Your task to perform on an android device: turn off smart reply in the gmail app Image 0: 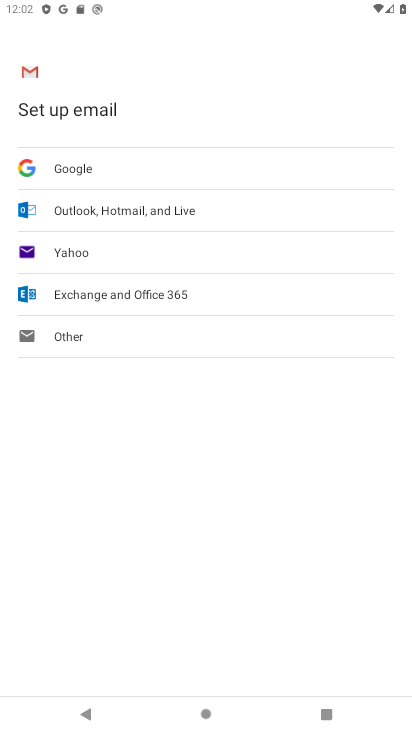
Step 0: press home button
Your task to perform on an android device: turn off smart reply in the gmail app Image 1: 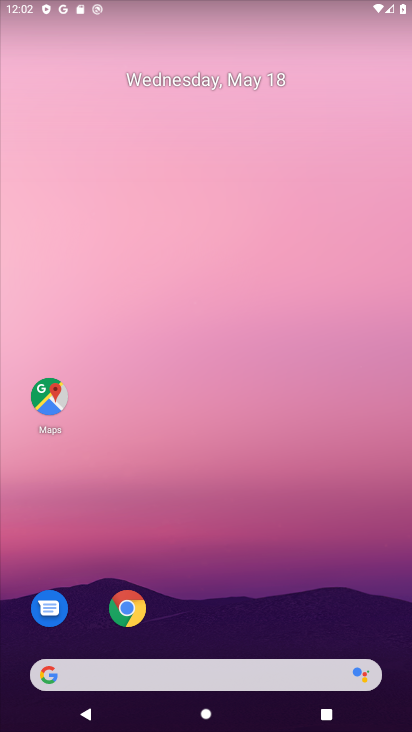
Step 1: drag from (247, 660) to (232, 274)
Your task to perform on an android device: turn off smart reply in the gmail app Image 2: 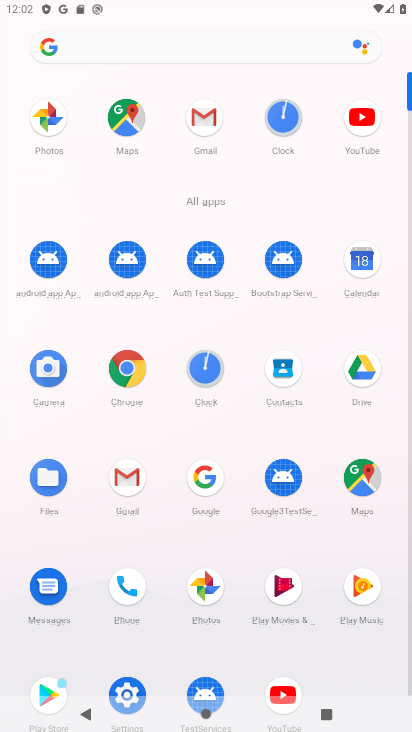
Step 2: click (121, 484)
Your task to perform on an android device: turn off smart reply in the gmail app Image 3: 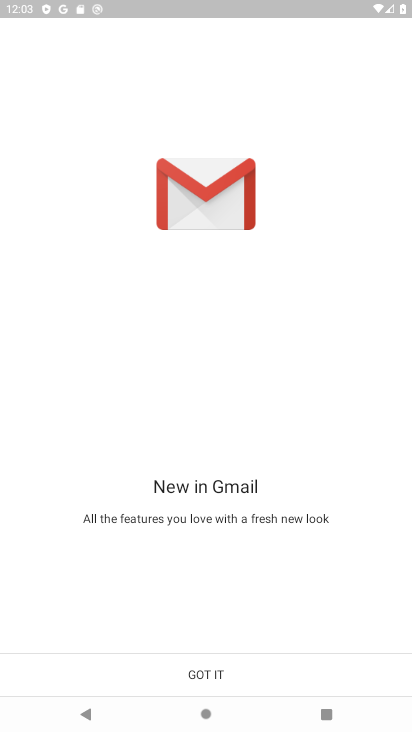
Step 3: click (226, 677)
Your task to perform on an android device: turn off smart reply in the gmail app Image 4: 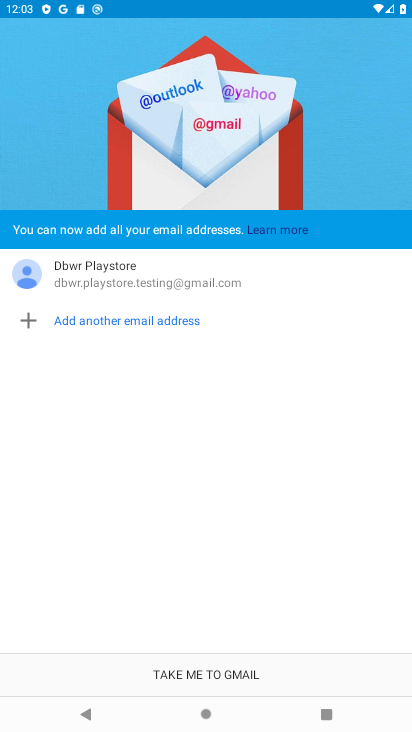
Step 4: click (226, 677)
Your task to perform on an android device: turn off smart reply in the gmail app Image 5: 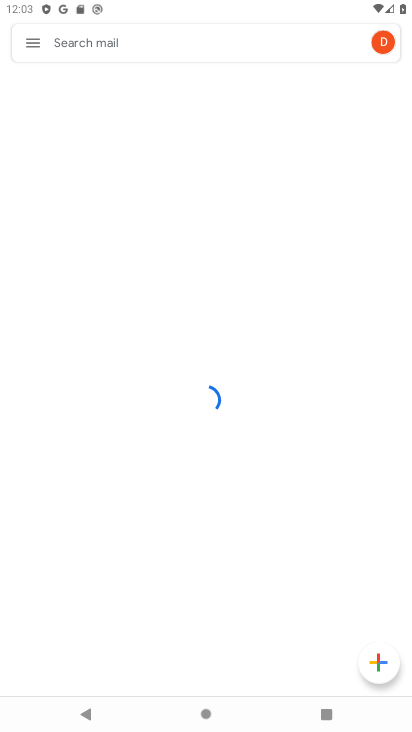
Step 5: click (32, 47)
Your task to perform on an android device: turn off smart reply in the gmail app Image 6: 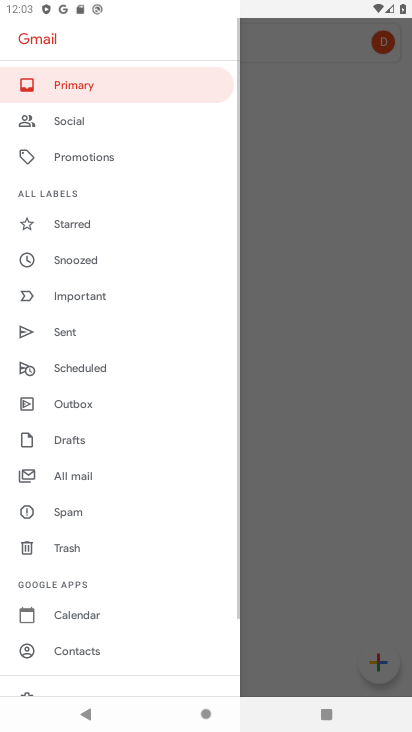
Step 6: drag from (106, 592) to (145, 504)
Your task to perform on an android device: turn off smart reply in the gmail app Image 7: 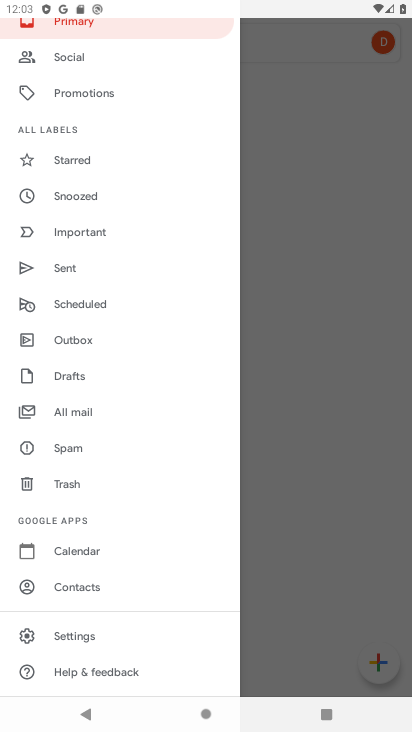
Step 7: click (71, 636)
Your task to perform on an android device: turn off smart reply in the gmail app Image 8: 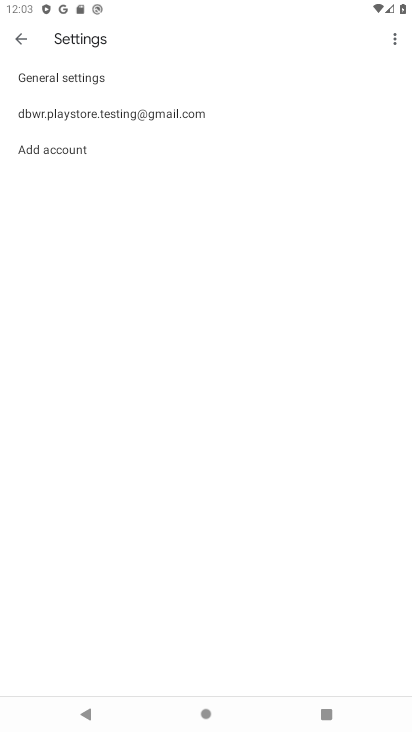
Step 8: click (106, 111)
Your task to perform on an android device: turn off smart reply in the gmail app Image 9: 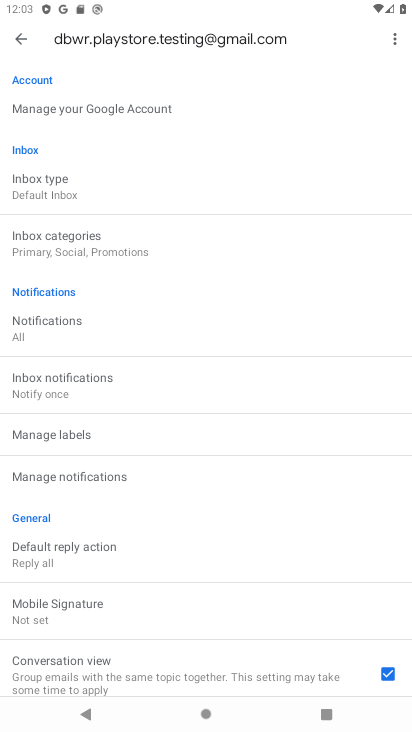
Step 9: drag from (119, 551) to (253, 225)
Your task to perform on an android device: turn off smart reply in the gmail app Image 10: 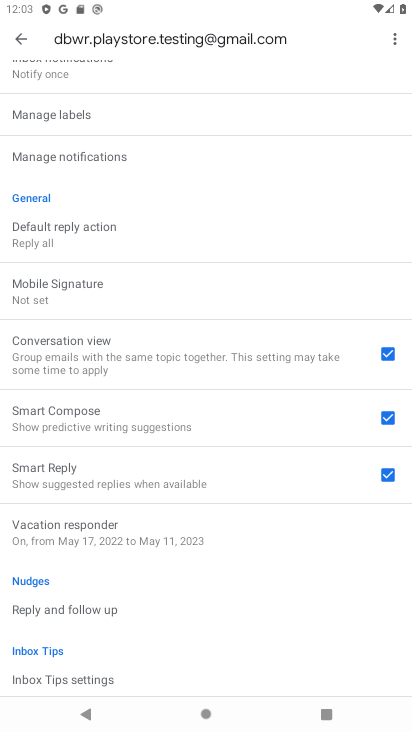
Step 10: click (233, 474)
Your task to perform on an android device: turn off smart reply in the gmail app Image 11: 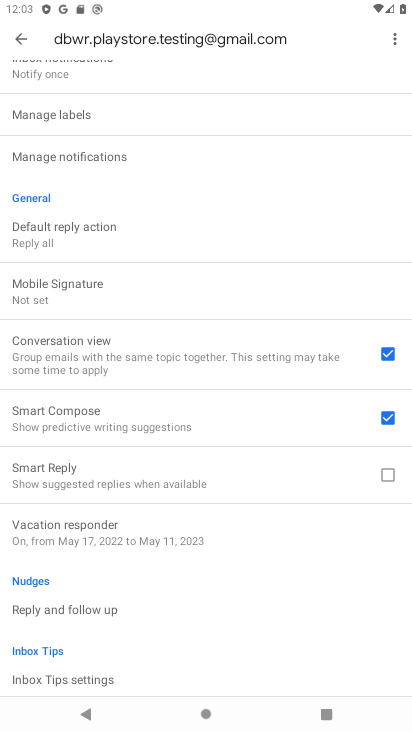
Step 11: task complete